Your task to perform on an android device: check battery use Image 0: 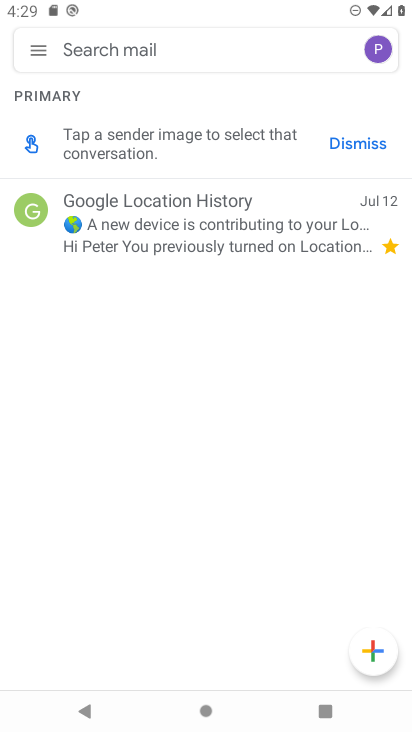
Step 0: press home button
Your task to perform on an android device: check battery use Image 1: 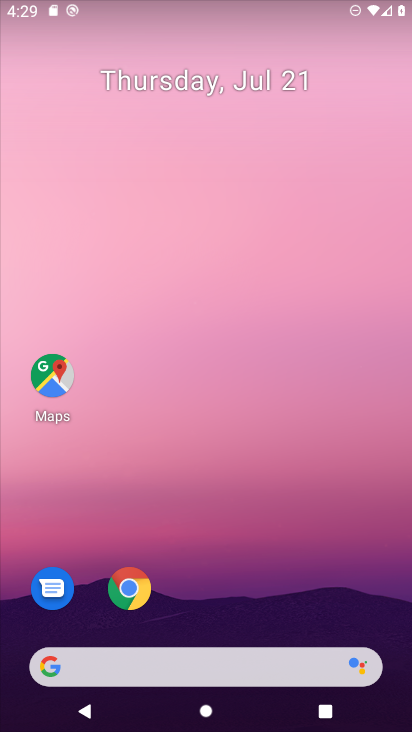
Step 1: drag from (268, 627) to (274, 150)
Your task to perform on an android device: check battery use Image 2: 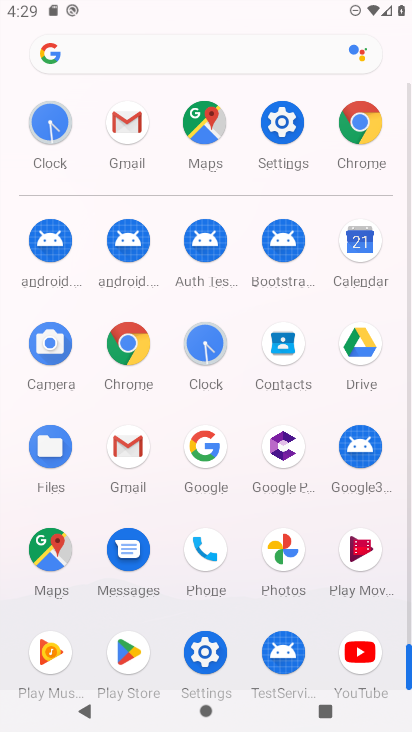
Step 2: click (281, 135)
Your task to perform on an android device: check battery use Image 3: 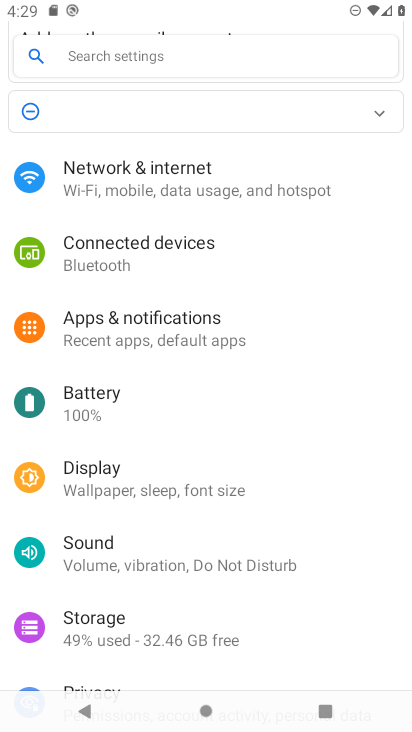
Step 3: click (132, 410)
Your task to perform on an android device: check battery use Image 4: 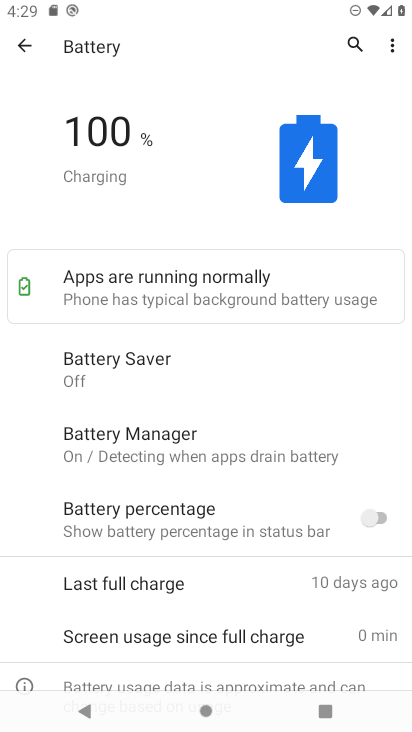
Step 4: task complete